Your task to perform on an android device: set an alarm Image 0: 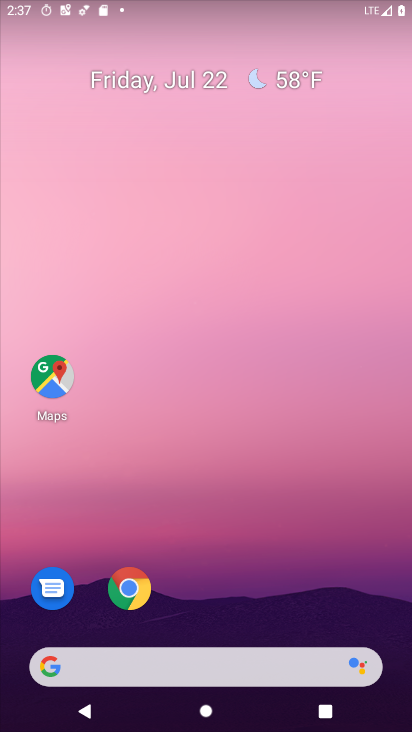
Step 0: drag from (248, 590) to (316, 58)
Your task to perform on an android device: set an alarm Image 1: 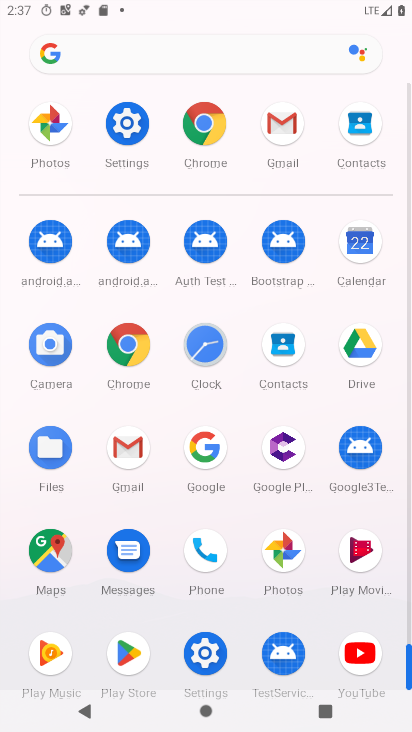
Step 1: click (209, 343)
Your task to perform on an android device: set an alarm Image 2: 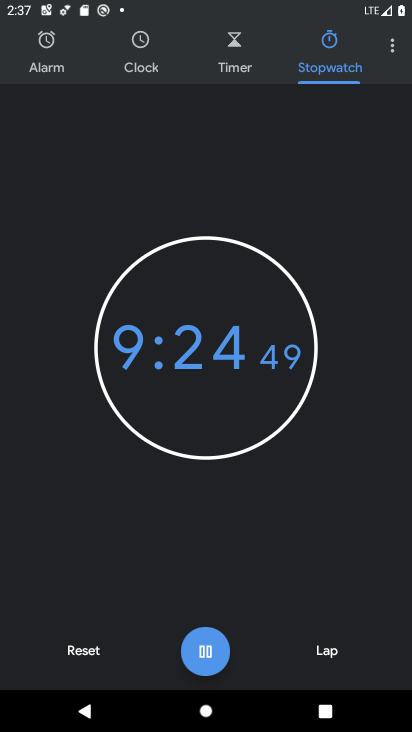
Step 2: click (36, 51)
Your task to perform on an android device: set an alarm Image 3: 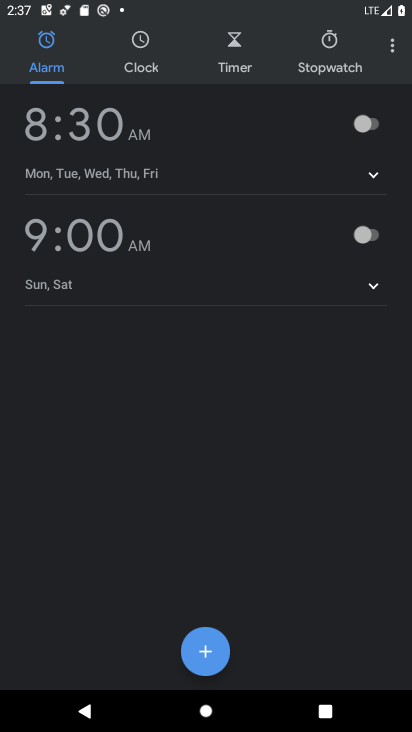
Step 3: click (211, 659)
Your task to perform on an android device: set an alarm Image 4: 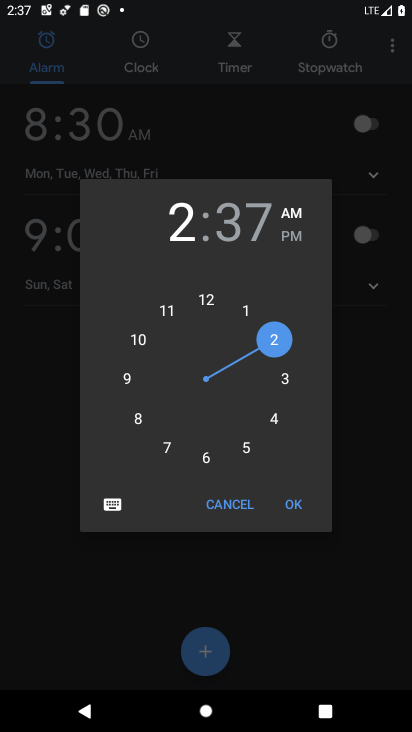
Step 4: click (211, 456)
Your task to perform on an android device: set an alarm Image 5: 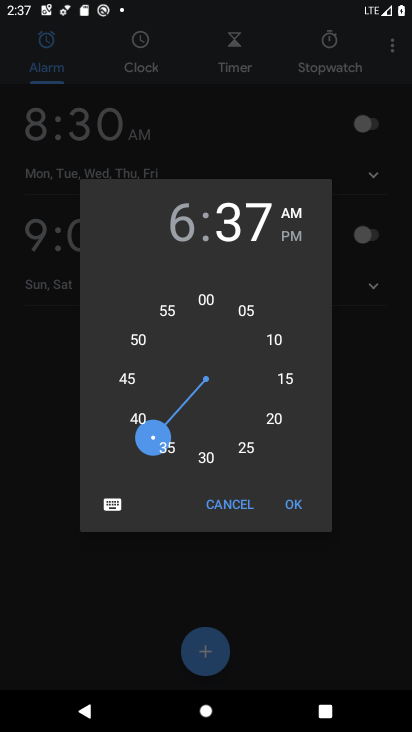
Step 5: click (211, 456)
Your task to perform on an android device: set an alarm Image 6: 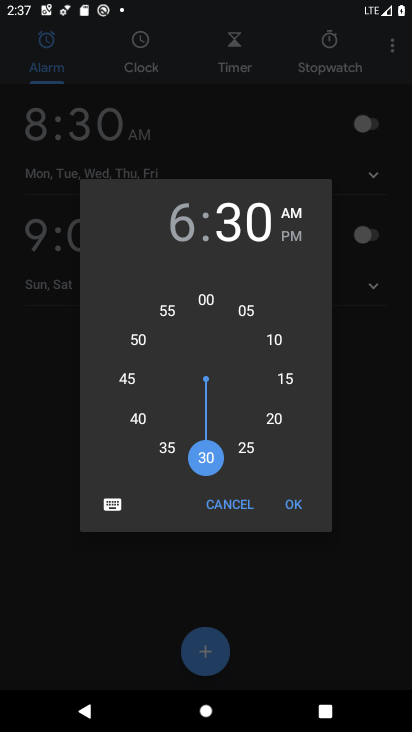
Step 6: click (285, 503)
Your task to perform on an android device: set an alarm Image 7: 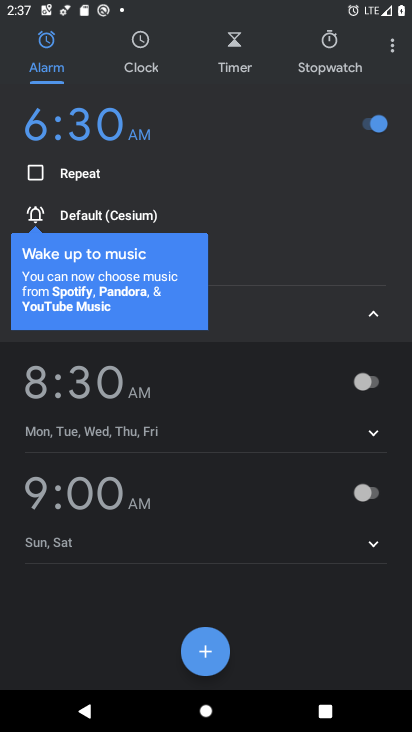
Step 7: task complete